Your task to perform on an android device: Open Google Maps Image 0: 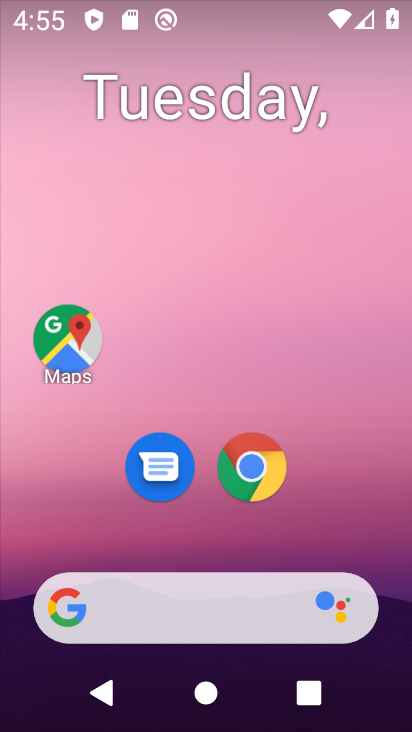
Step 0: click (62, 356)
Your task to perform on an android device: Open Google Maps Image 1: 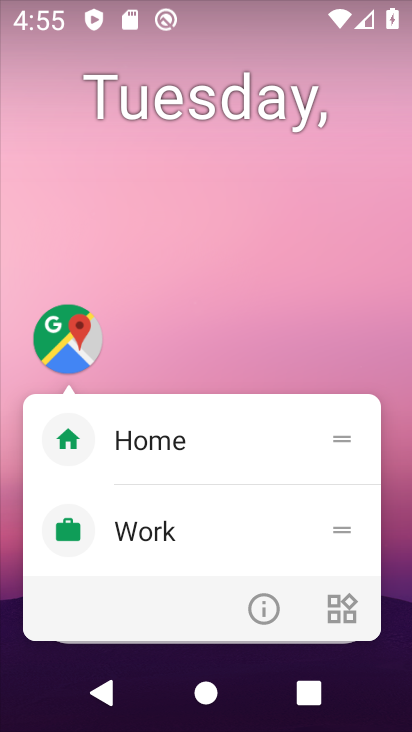
Step 1: click (58, 337)
Your task to perform on an android device: Open Google Maps Image 2: 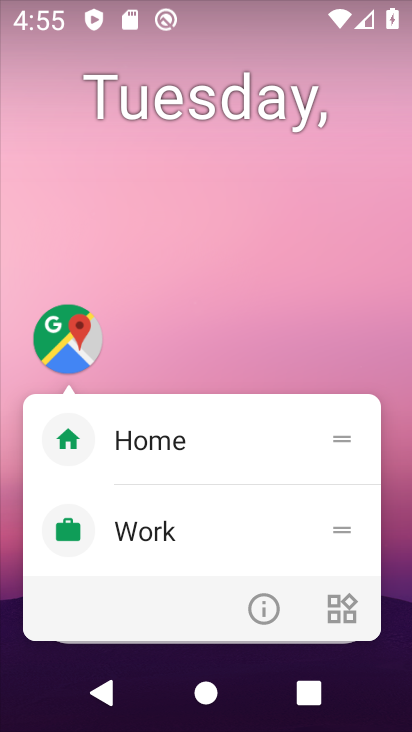
Step 2: click (68, 362)
Your task to perform on an android device: Open Google Maps Image 3: 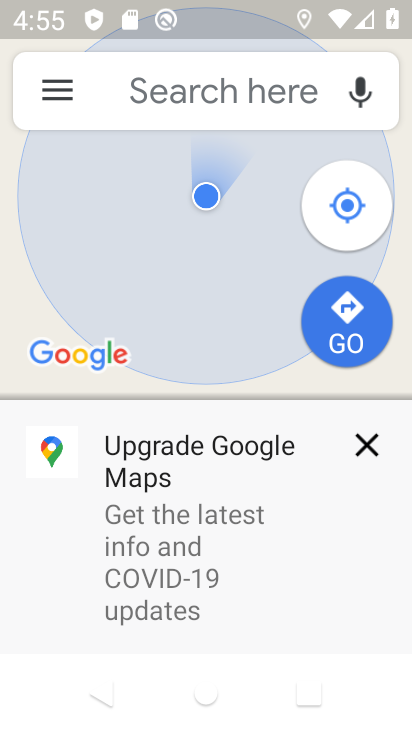
Step 3: task complete